Your task to perform on an android device: What's the weather today? Image 0: 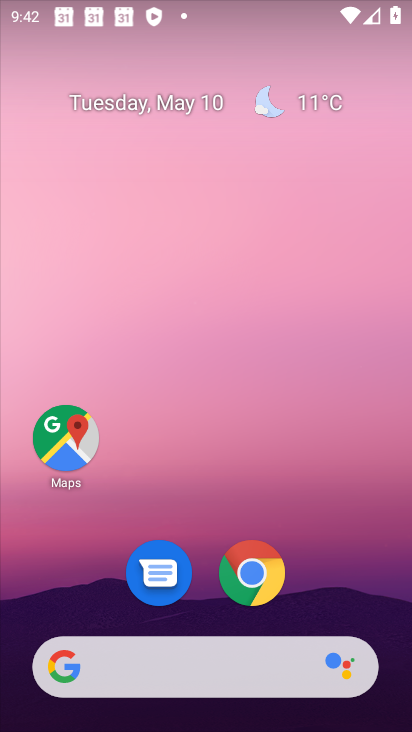
Step 0: drag from (283, 620) to (329, 180)
Your task to perform on an android device: What's the weather today? Image 1: 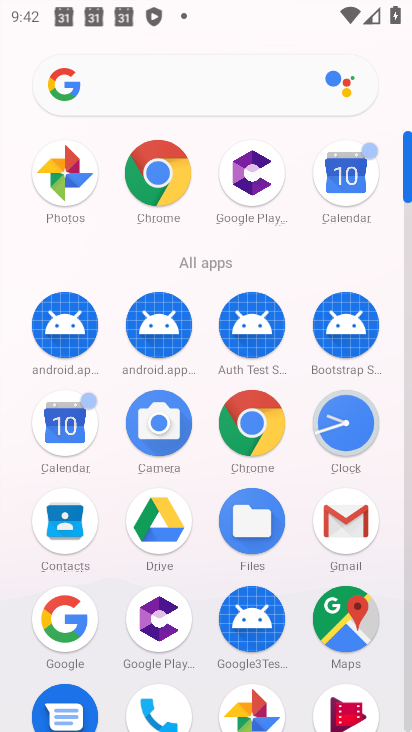
Step 1: click (264, 412)
Your task to perform on an android device: What's the weather today? Image 2: 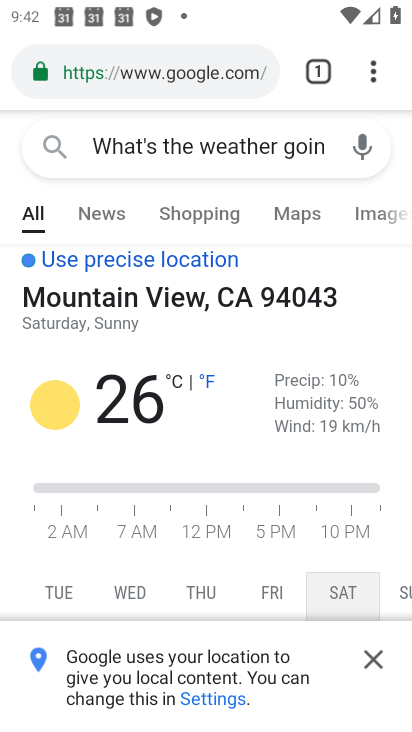
Step 2: click (261, 72)
Your task to perform on an android device: What's the weather today? Image 3: 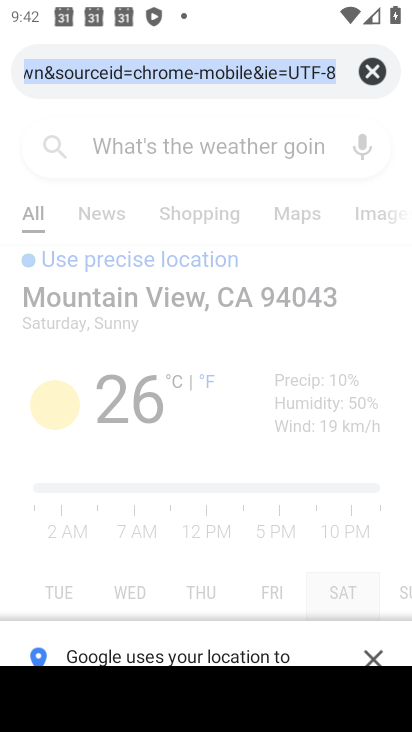
Step 3: click (380, 65)
Your task to perform on an android device: What's the weather today? Image 4: 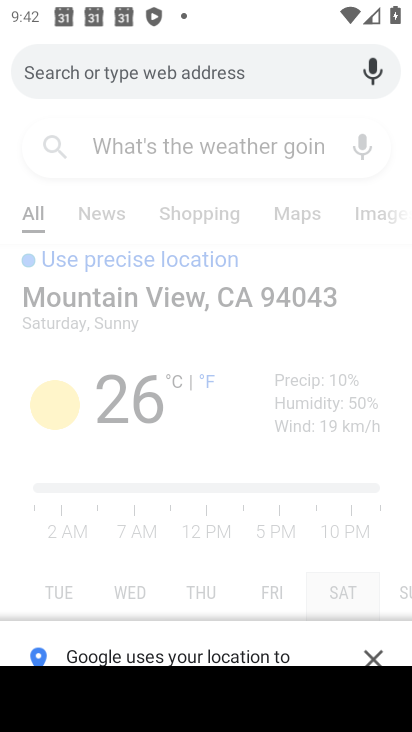
Step 4: type "What's the weather today?"
Your task to perform on an android device: What's the weather today? Image 5: 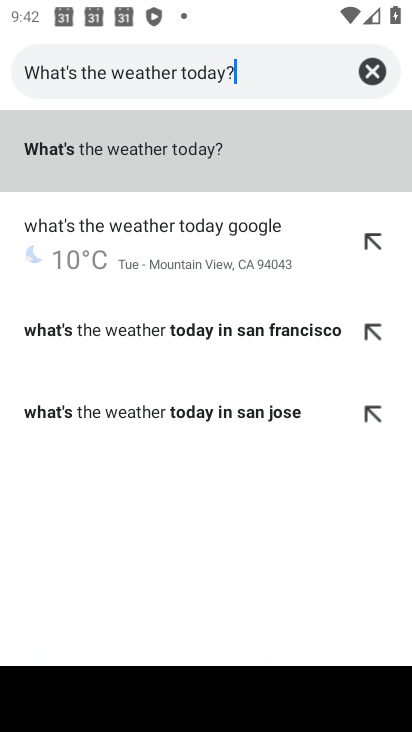
Step 5: click (134, 152)
Your task to perform on an android device: What's the weather today? Image 6: 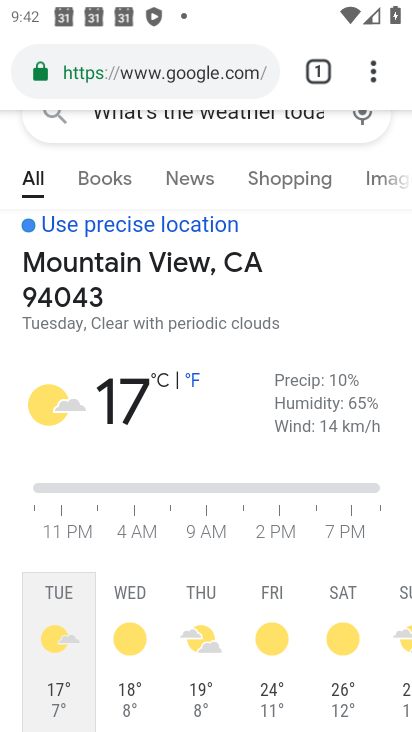
Step 6: task complete